Your task to perform on an android device: Empty the shopping cart on walmart. Image 0: 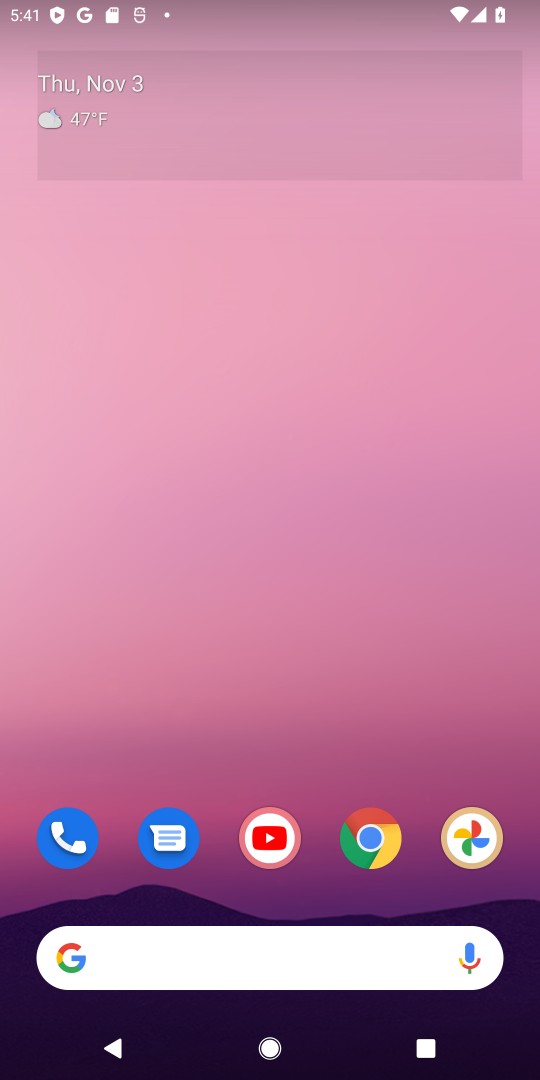
Step 0: click (263, 936)
Your task to perform on an android device: Empty the shopping cart on walmart. Image 1: 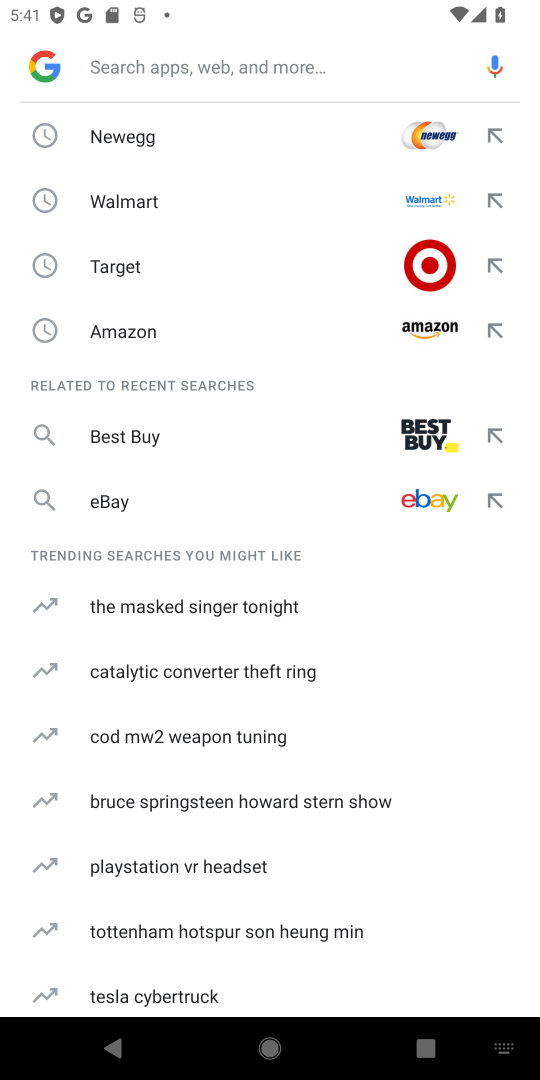
Step 1: type "walmart"
Your task to perform on an android device: Empty the shopping cart on walmart. Image 2: 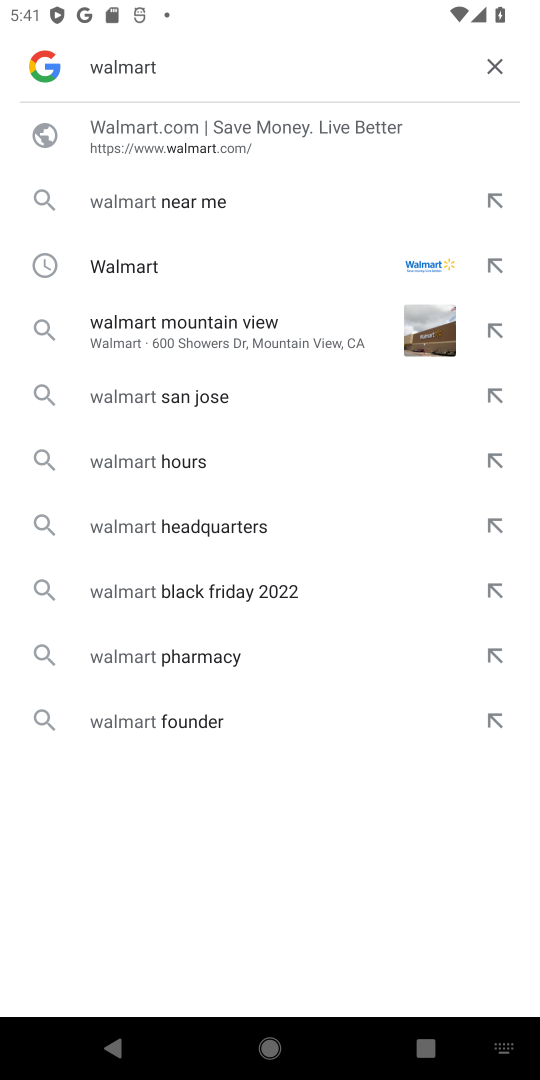
Step 2: click (268, 262)
Your task to perform on an android device: Empty the shopping cart on walmart. Image 3: 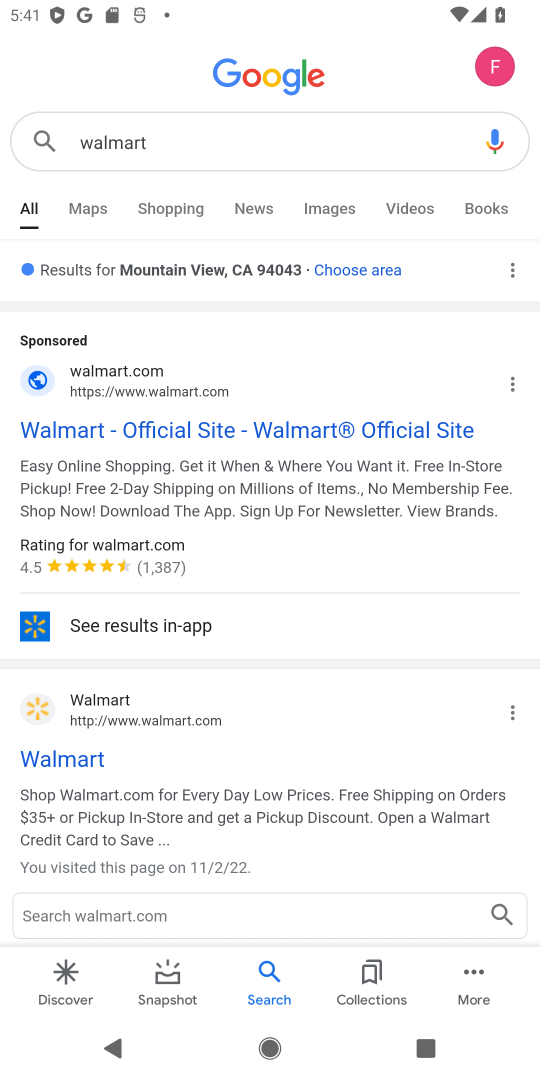
Step 3: click (129, 426)
Your task to perform on an android device: Empty the shopping cart on walmart. Image 4: 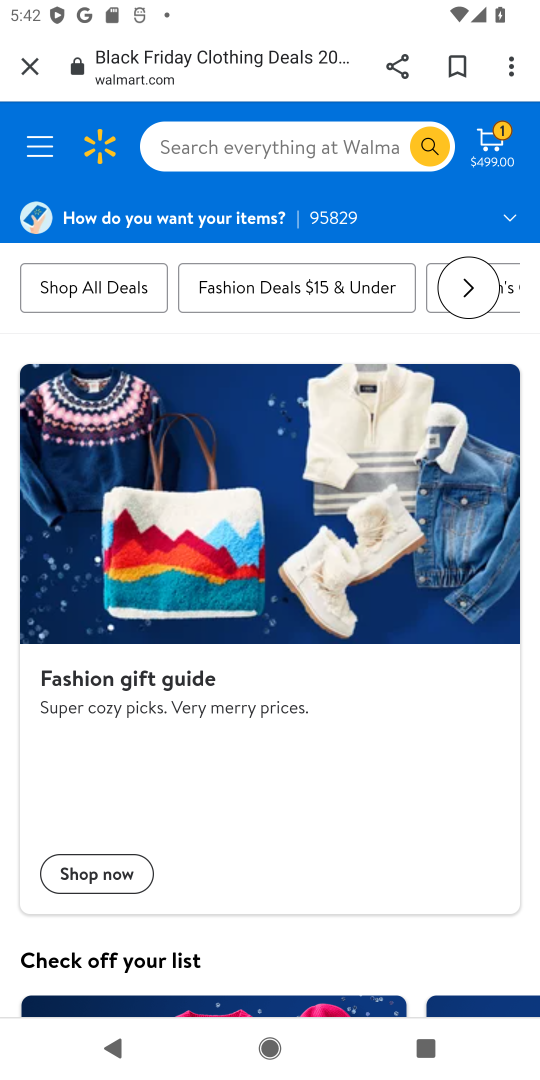
Step 4: click (488, 141)
Your task to perform on an android device: Empty the shopping cart on walmart. Image 5: 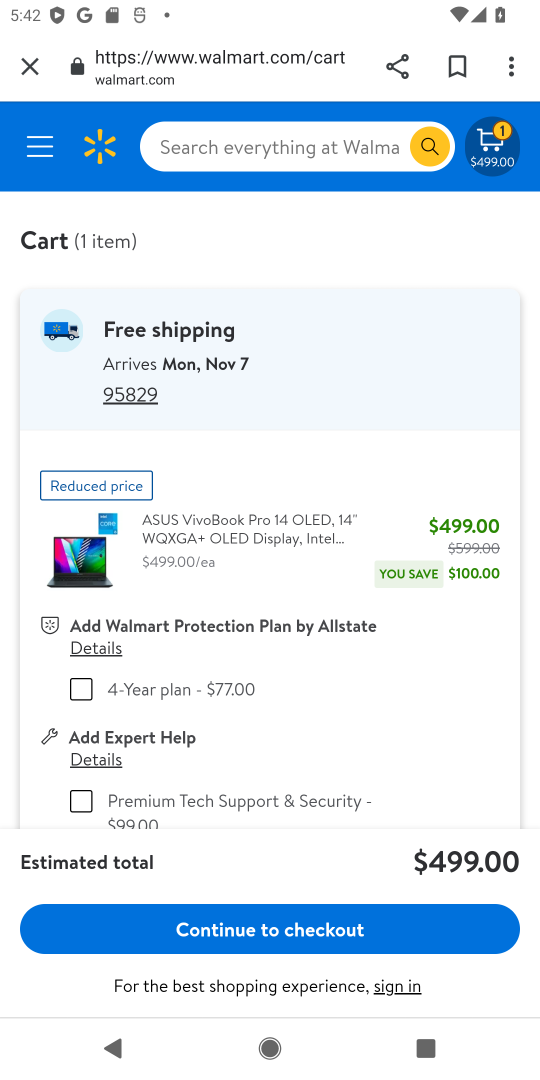
Step 5: drag from (312, 703) to (401, 416)
Your task to perform on an android device: Empty the shopping cart on walmart. Image 6: 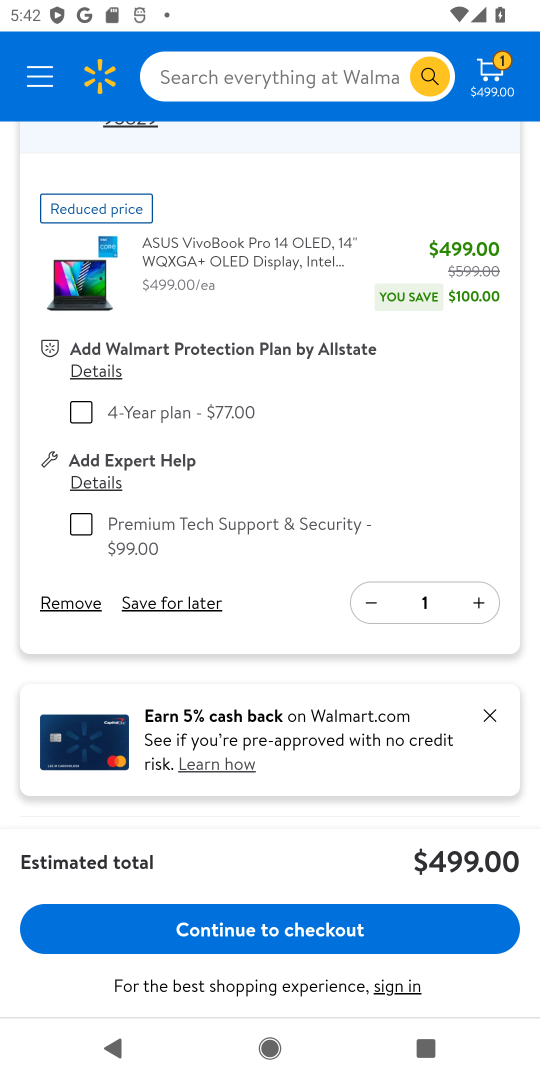
Step 6: click (61, 606)
Your task to perform on an android device: Empty the shopping cart on walmart. Image 7: 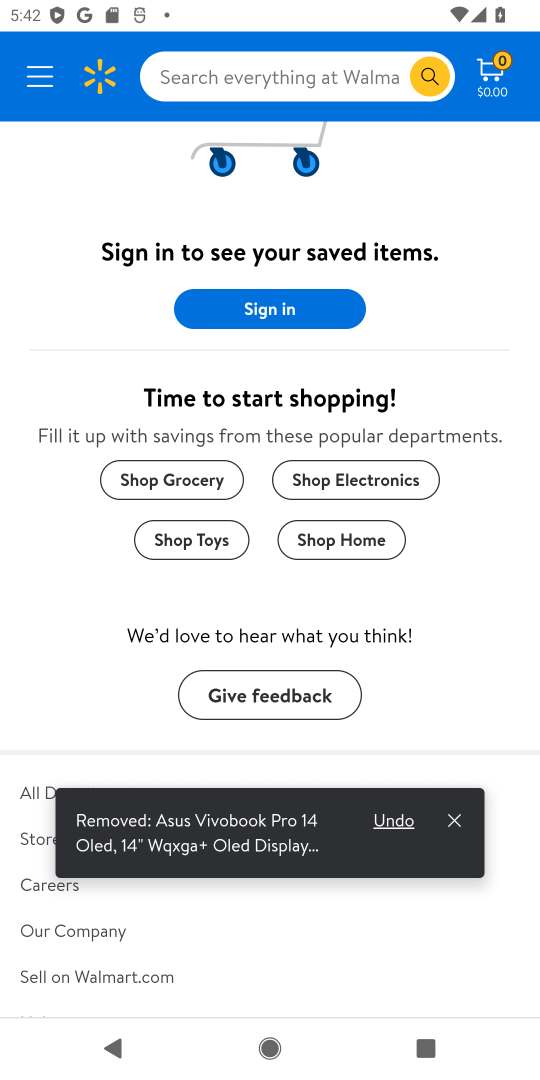
Step 7: task complete